Your task to perform on an android device: turn smart compose on in the gmail app Image 0: 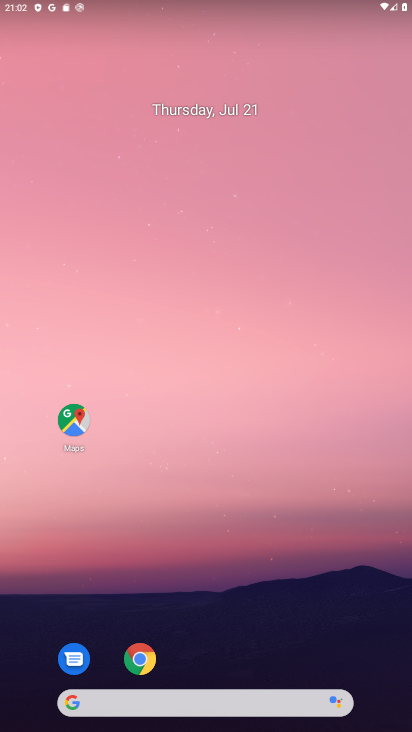
Step 0: drag from (234, 623) to (155, 40)
Your task to perform on an android device: turn smart compose on in the gmail app Image 1: 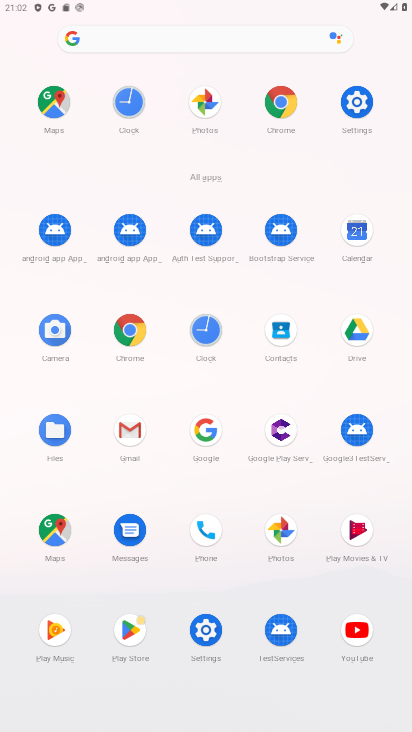
Step 1: click (128, 430)
Your task to perform on an android device: turn smart compose on in the gmail app Image 2: 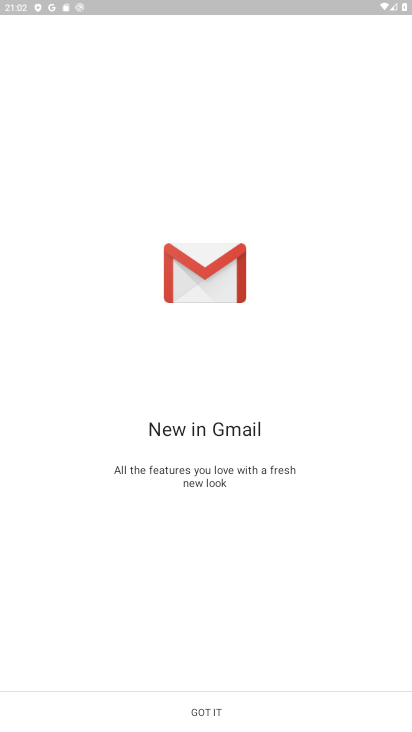
Step 2: click (233, 705)
Your task to perform on an android device: turn smart compose on in the gmail app Image 3: 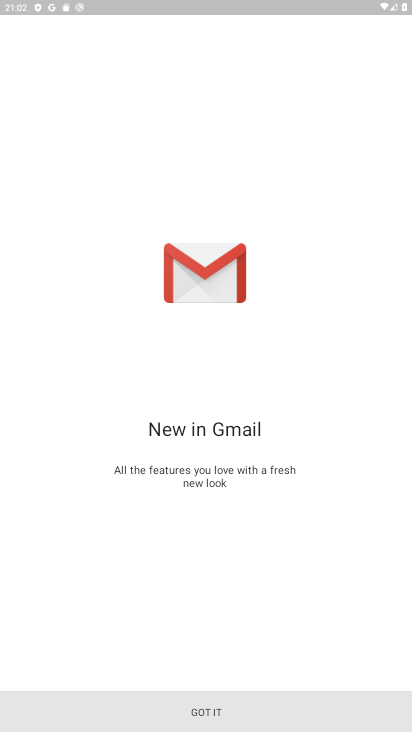
Step 3: click (233, 705)
Your task to perform on an android device: turn smart compose on in the gmail app Image 4: 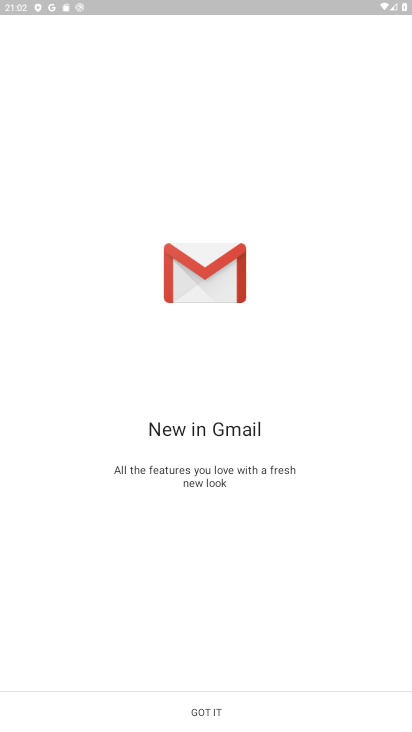
Step 4: click (233, 705)
Your task to perform on an android device: turn smart compose on in the gmail app Image 5: 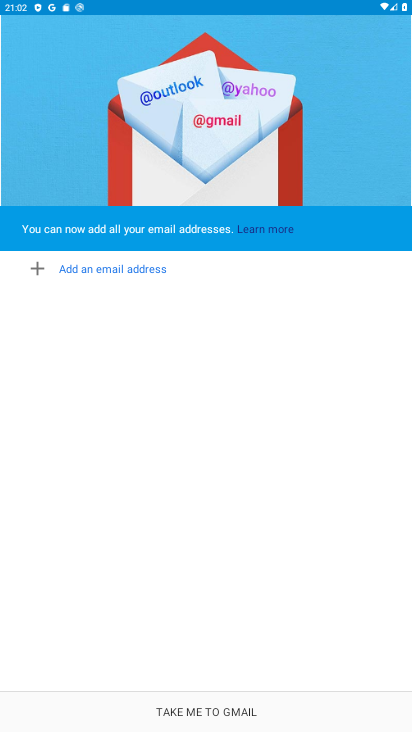
Step 5: click (233, 705)
Your task to perform on an android device: turn smart compose on in the gmail app Image 6: 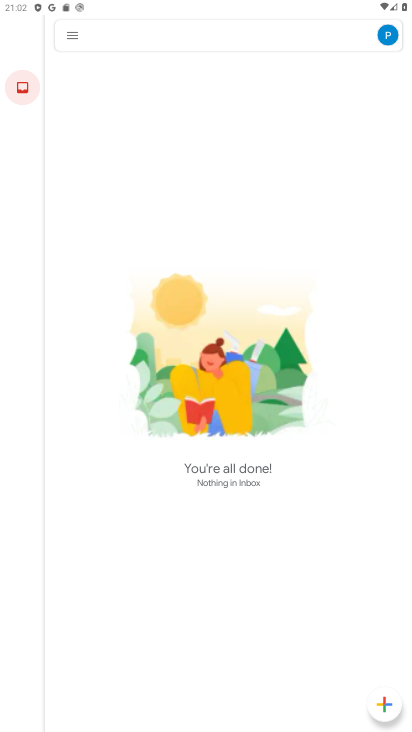
Step 6: click (70, 47)
Your task to perform on an android device: turn smart compose on in the gmail app Image 7: 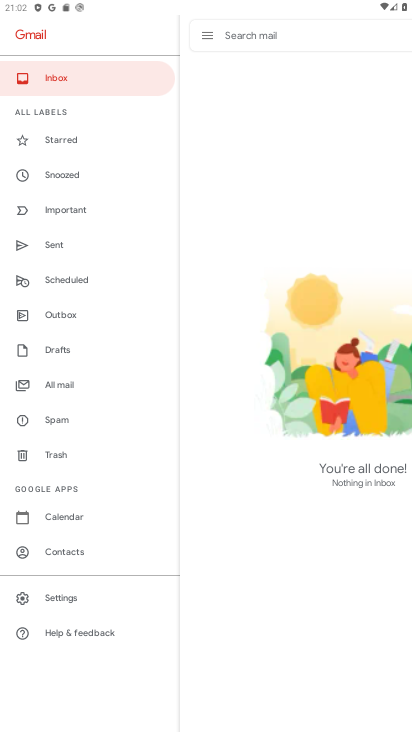
Step 7: click (74, 604)
Your task to perform on an android device: turn smart compose on in the gmail app Image 8: 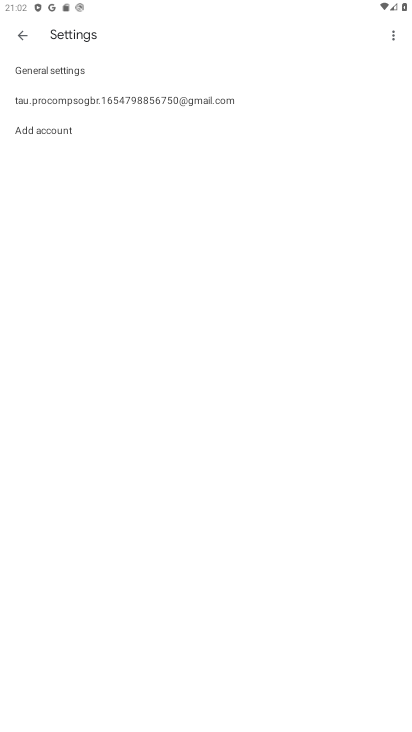
Step 8: click (45, 100)
Your task to perform on an android device: turn smart compose on in the gmail app Image 9: 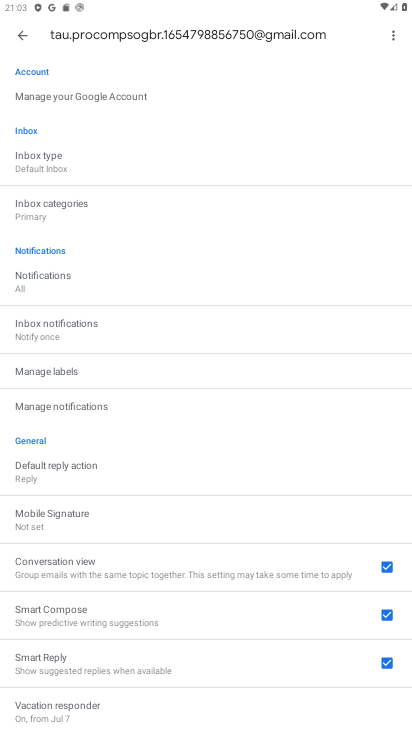
Step 9: task complete